Your task to perform on an android device: Do I have any events today? Image 0: 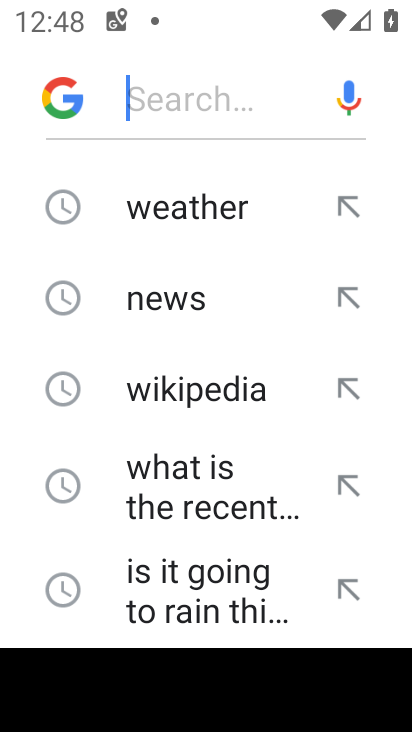
Step 0: press home button
Your task to perform on an android device: Do I have any events today? Image 1: 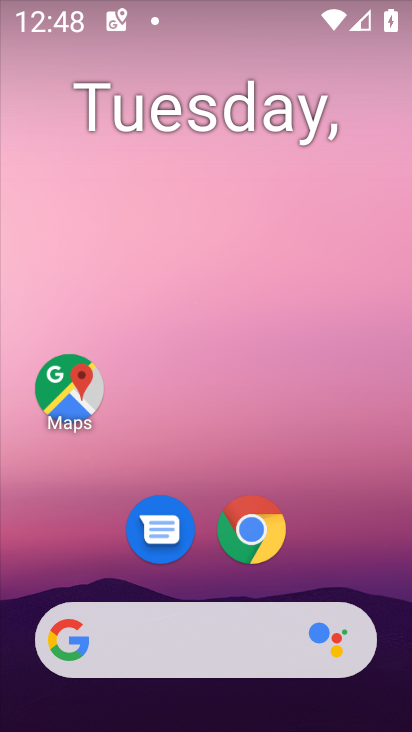
Step 1: click (212, 118)
Your task to perform on an android device: Do I have any events today? Image 2: 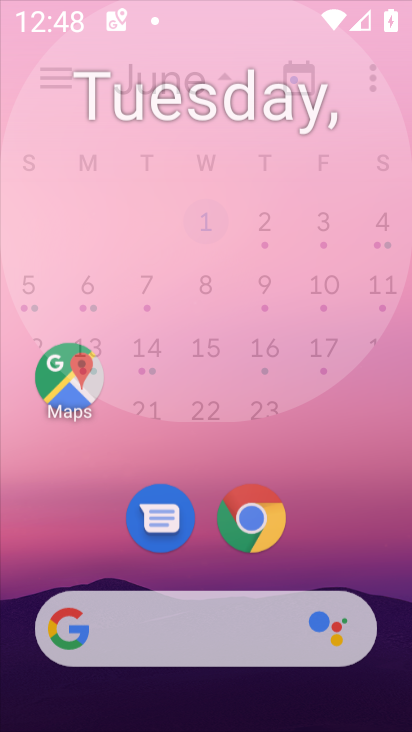
Step 2: drag from (197, 426) to (219, 1)
Your task to perform on an android device: Do I have any events today? Image 3: 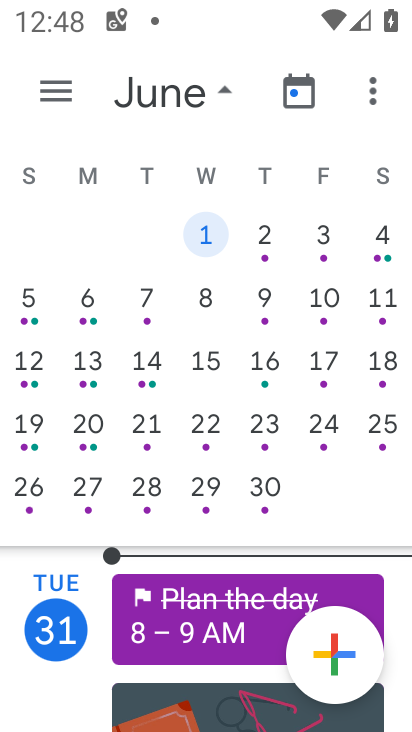
Step 3: drag from (36, 381) to (371, 357)
Your task to perform on an android device: Do I have any events today? Image 4: 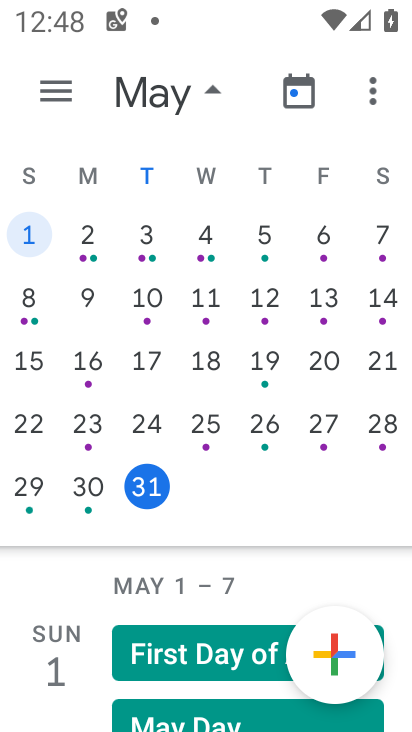
Step 4: click (152, 490)
Your task to perform on an android device: Do I have any events today? Image 5: 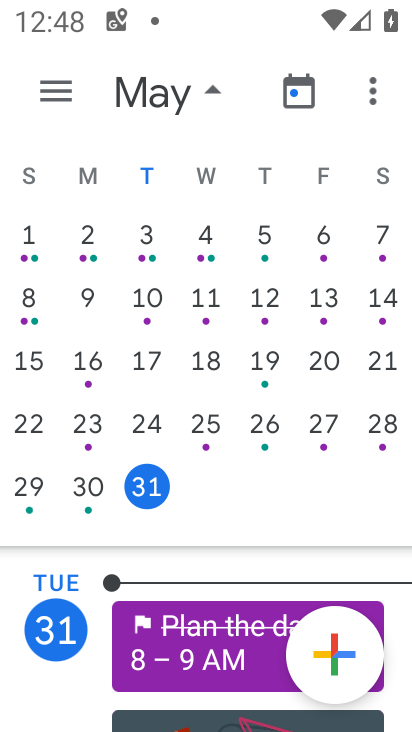
Step 5: drag from (176, 662) to (276, 83)
Your task to perform on an android device: Do I have any events today? Image 6: 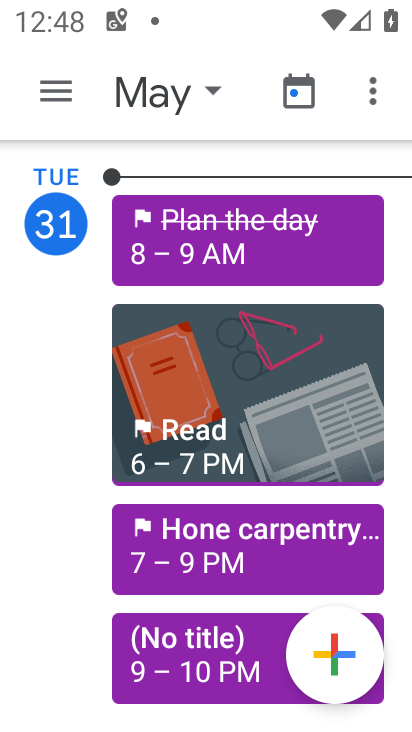
Step 6: click (204, 559)
Your task to perform on an android device: Do I have any events today? Image 7: 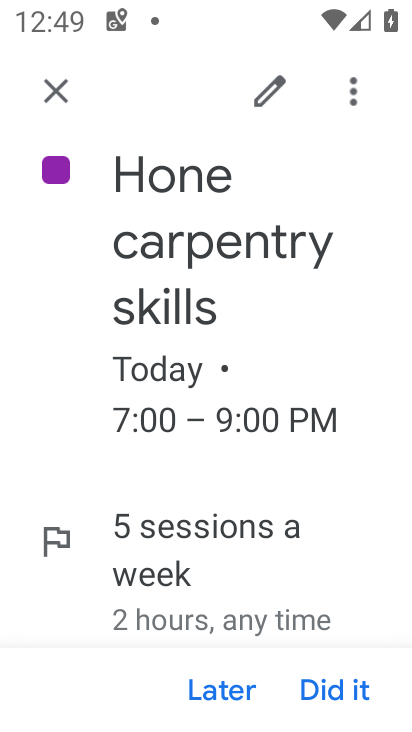
Step 7: task complete